Your task to perform on an android device: turn vacation reply on in the gmail app Image 0: 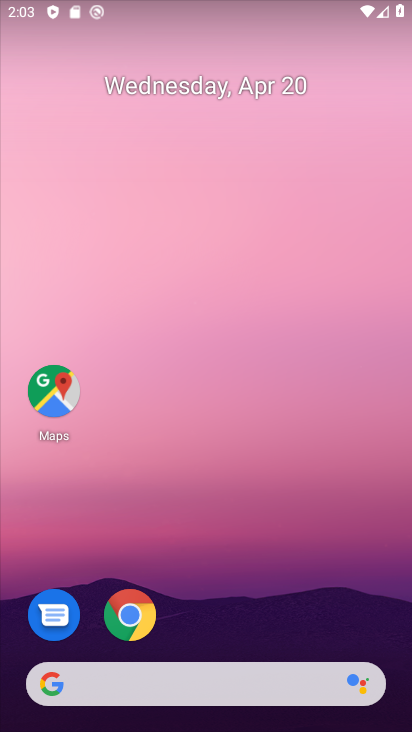
Step 0: drag from (318, 599) to (283, 103)
Your task to perform on an android device: turn vacation reply on in the gmail app Image 1: 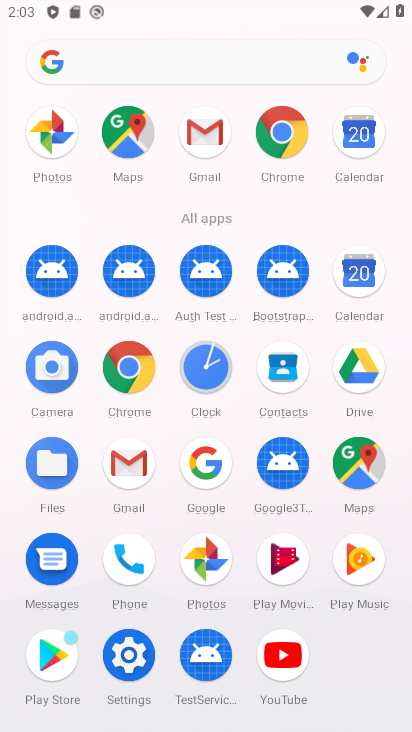
Step 1: click (201, 129)
Your task to perform on an android device: turn vacation reply on in the gmail app Image 2: 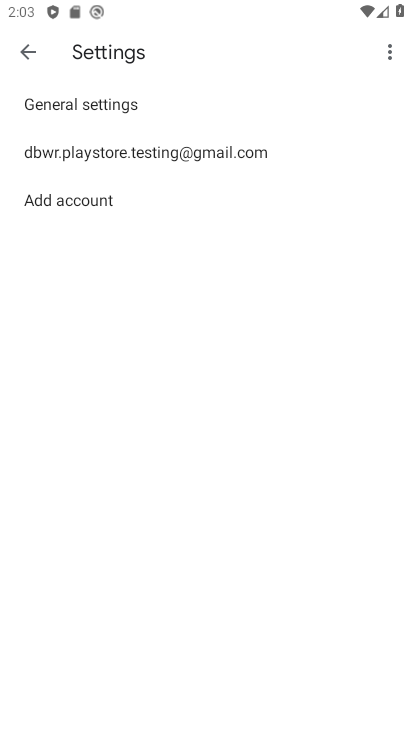
Step 2: click (185, 139)
Your task to perform on an android device: turn vacation reply on in the gmail app Image 3: 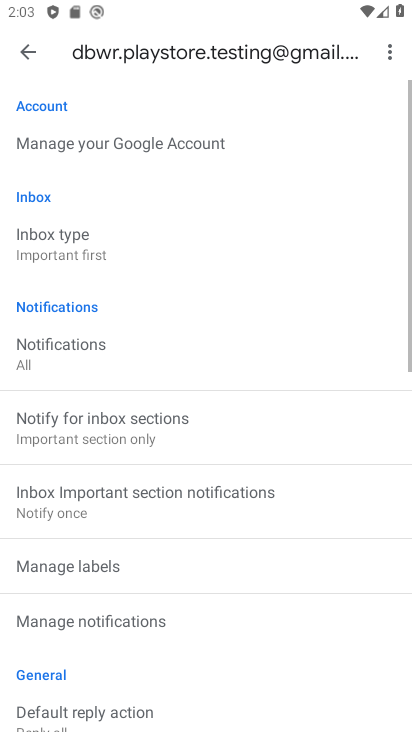
Step 3: drag from (227, 695) to (216, 556)
Your task to perform on an android device: turn vacation reply on in the gmail app Image 4: 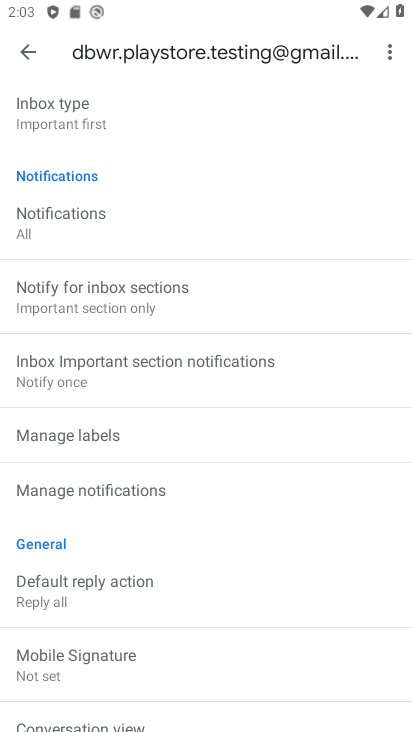
Step 4: drag from (196, 664) to (169, 318)
Your task to perform on an android device: turn vacation reply on in the gmail app Image 5: 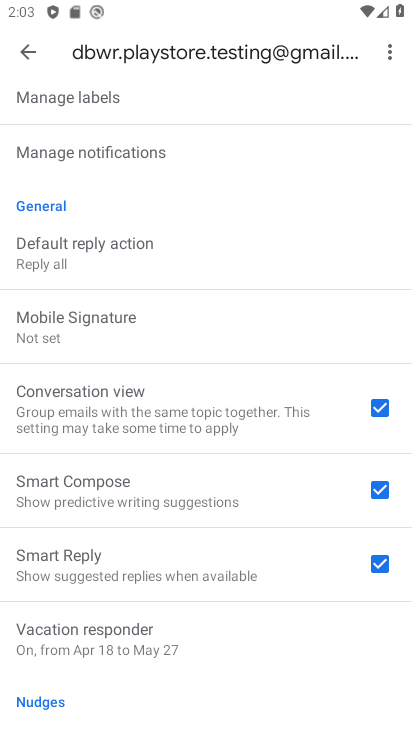
Step 5: drag from (191, 627) to (188, 351)
Your task to perform on an android device: turn vacation reply on in the gmail app Image 6: 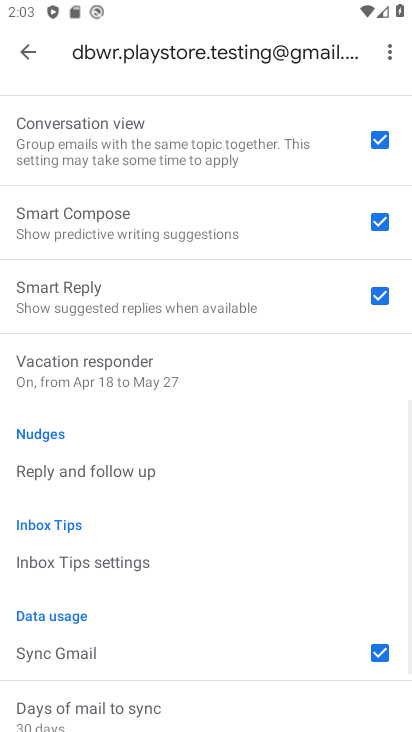
Step 6: click (97, 359)
Your task to perform on an android device: turn vacation reply on in the gmail app Image 7: 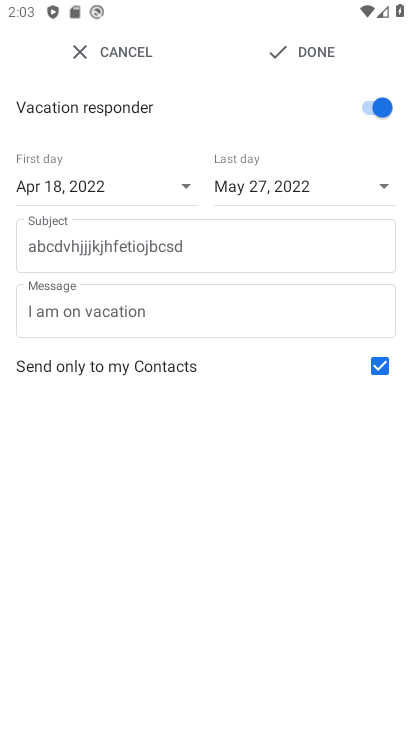
Step 7: click (118, 185)
Your task to perform on an android device: turn vacation reply on in the gmail app Image 8: 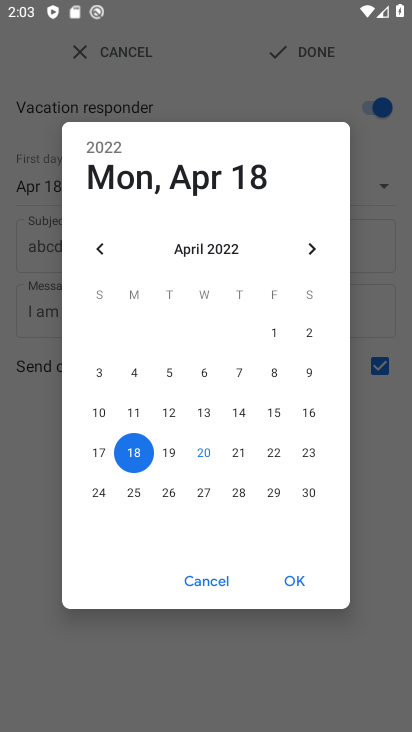
Step 8: click (209, 451)
Your task to perform on an android device: turn vacation reply on in the gmail app Image 9: 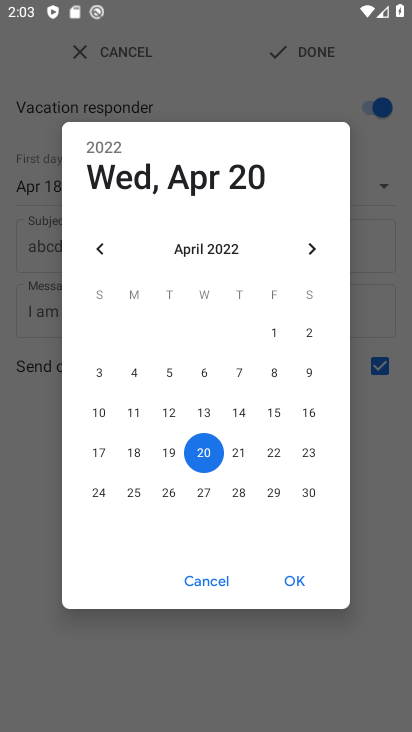
Step 9: click (297, 579)
Your task to perform on an android device: turn vacation reply on in the gmail app Image 10: 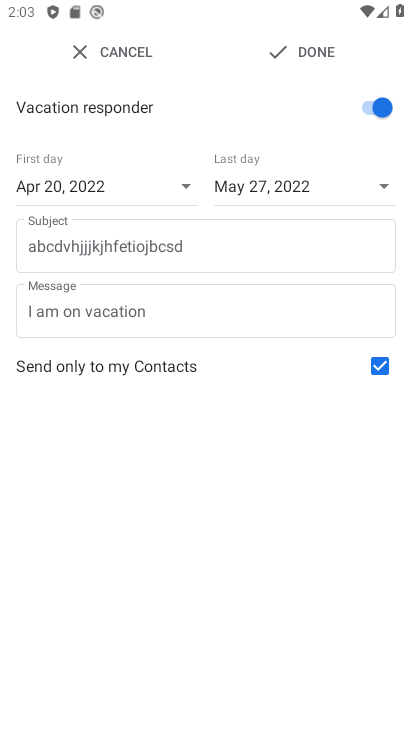
Step 10: click (306, 56)
Your task to perform on an android device: turn vacation reply on in the gmail app Image 11: 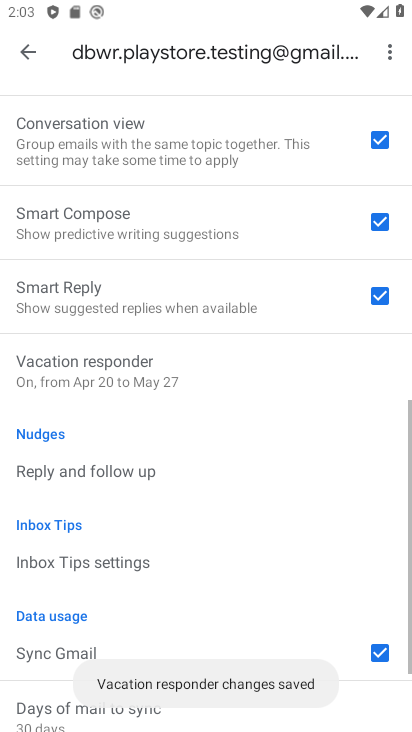
Step 11: task complete